Your task to perform on an android device: open app "TextNow: Call + Text Unlimited" Image 0: 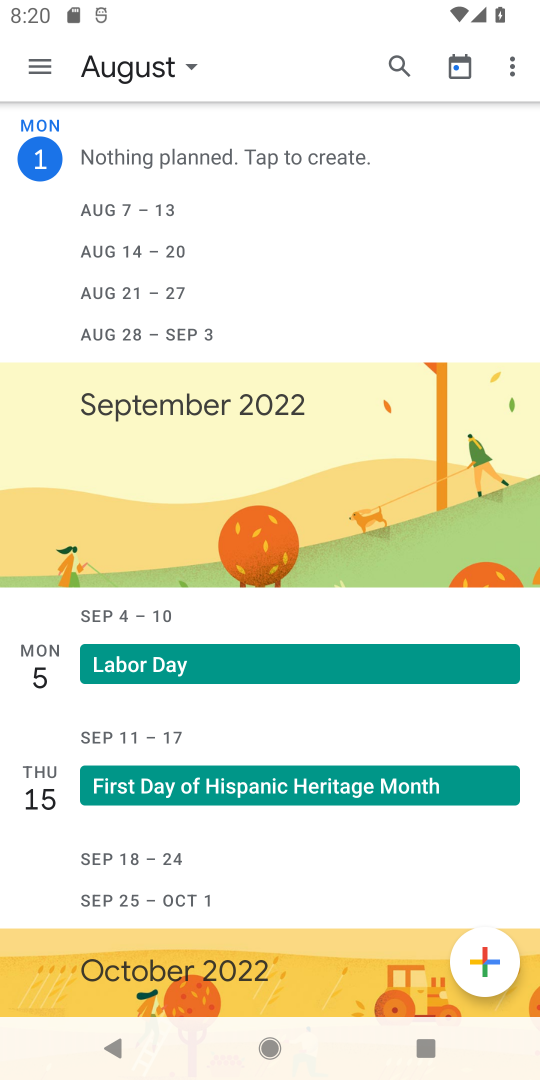
Step 0: press home button
Your task to perform on an android device: open app "TextNow: Call + Text Unlimited" Image 1: 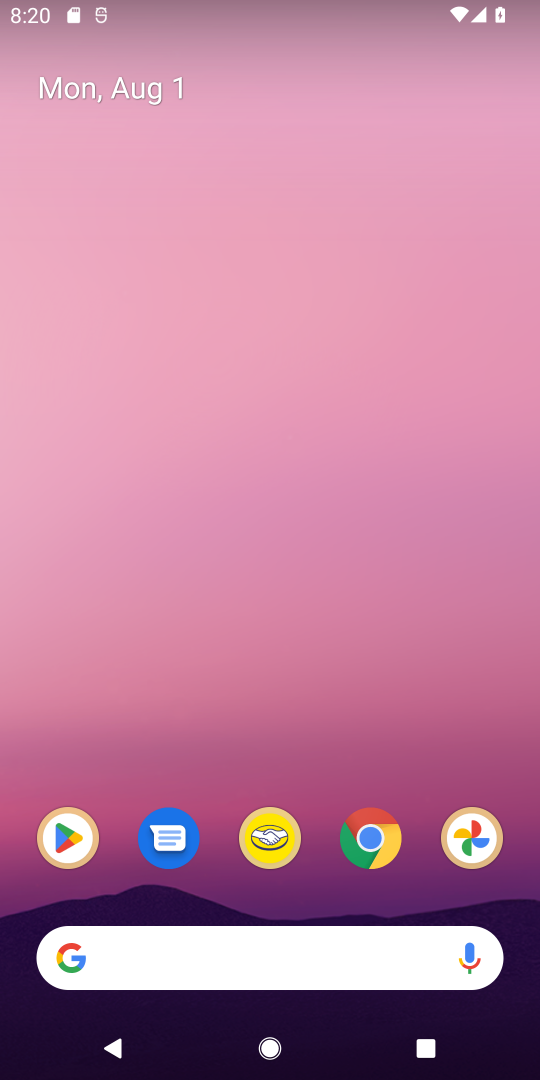
Step 1: click (64, 821)
Your task to perform on an android device: open app "TextNow: Call + Text Unlimited" Image 2: 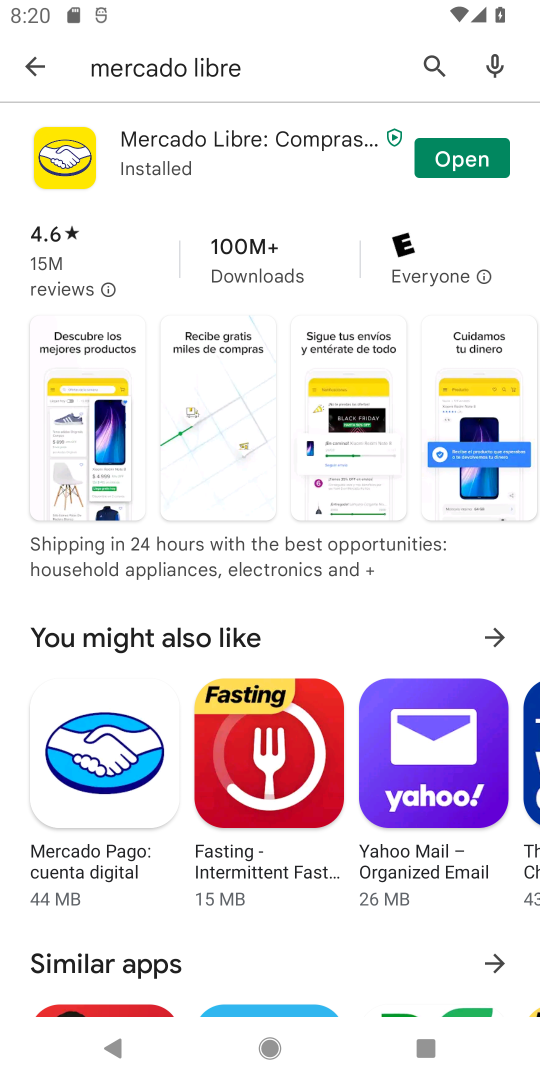
Step 2: click (435, 50)
Your task to perform on an android device: open app "TextNow: Call + Text Unlimited" Image 3: 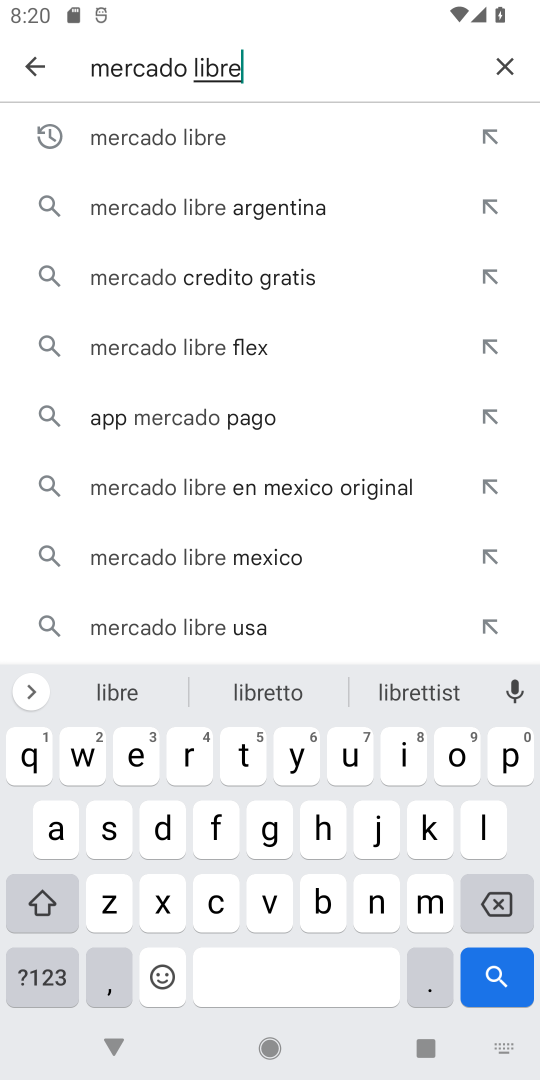
Step 3: click (506, 67)
Your task to perform on an android device: open app "TextNow: Call + Text Unlimited" Image 4: 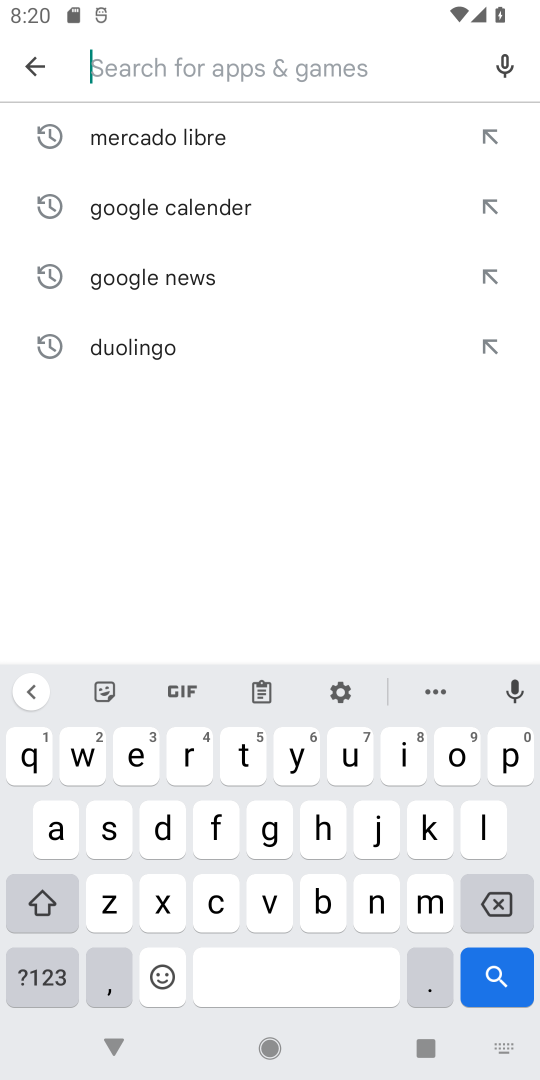
Step 4: click (244, 765)
Your task to perform on an android device: open app "TextNow: Call + Text Unlimited" Image 5: 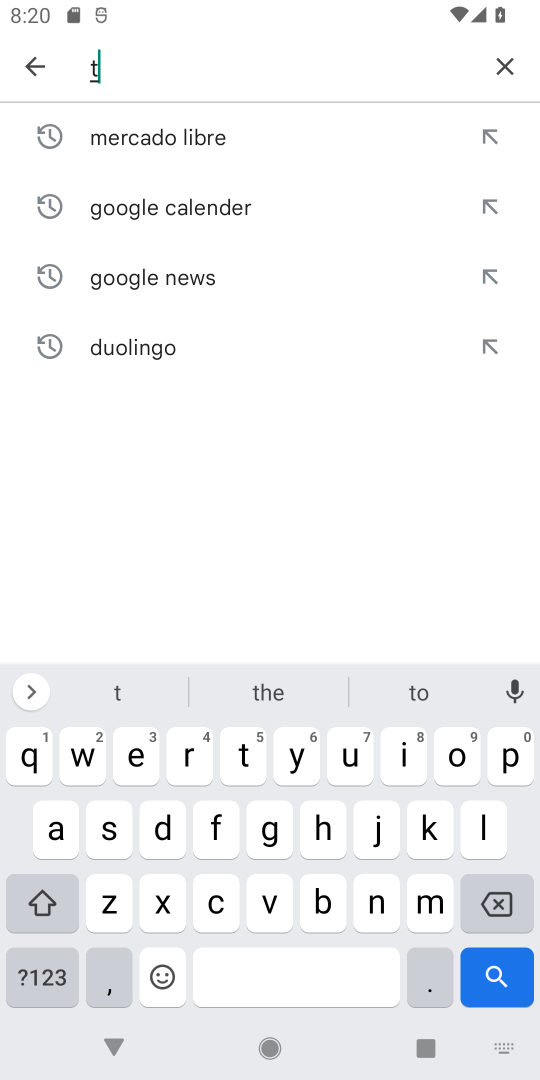
Step 5: click (134, 756)
Your task to perform on an android device: open app "TextNow: Call + Text Unlimited" Image 6: 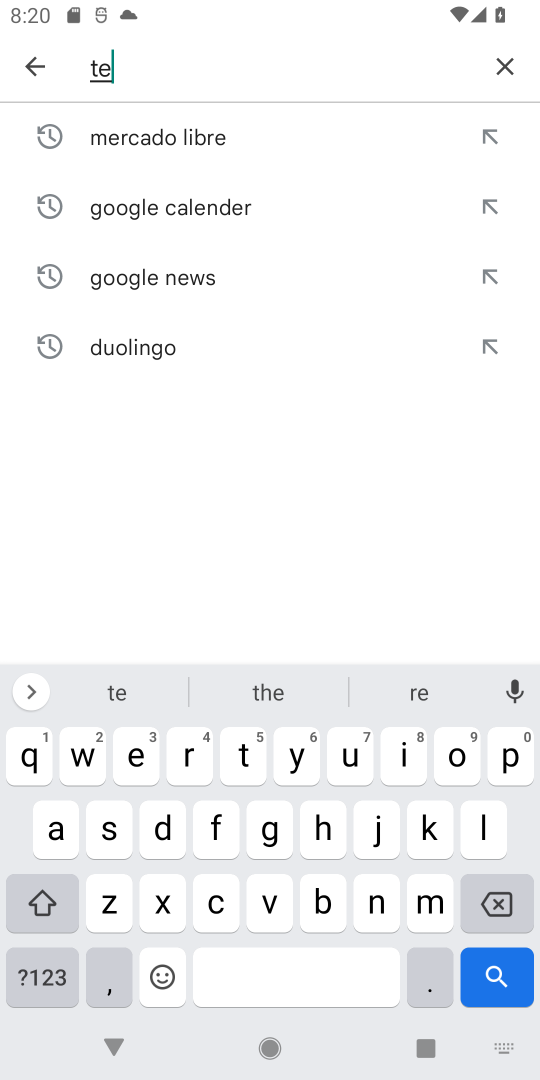
Step 6: click (164, 909)
Your task to perform on an android device: open app "TextNow: Call + Text Unlimited" Image 7: 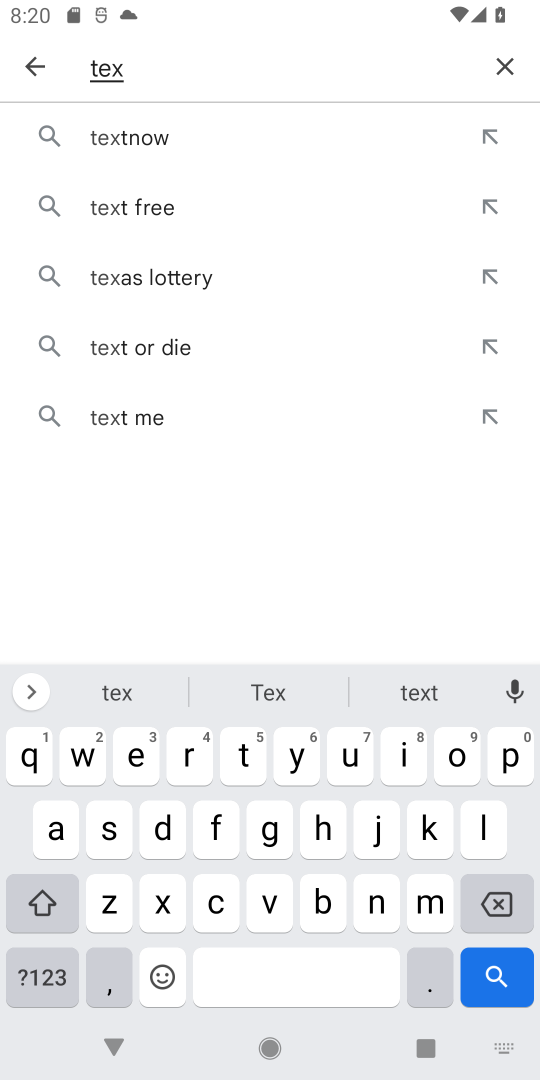
Step 7: click (239, 760)
Your task to perform on an android device: open app "TextNow: Call + Text Unlimited" Image 8: 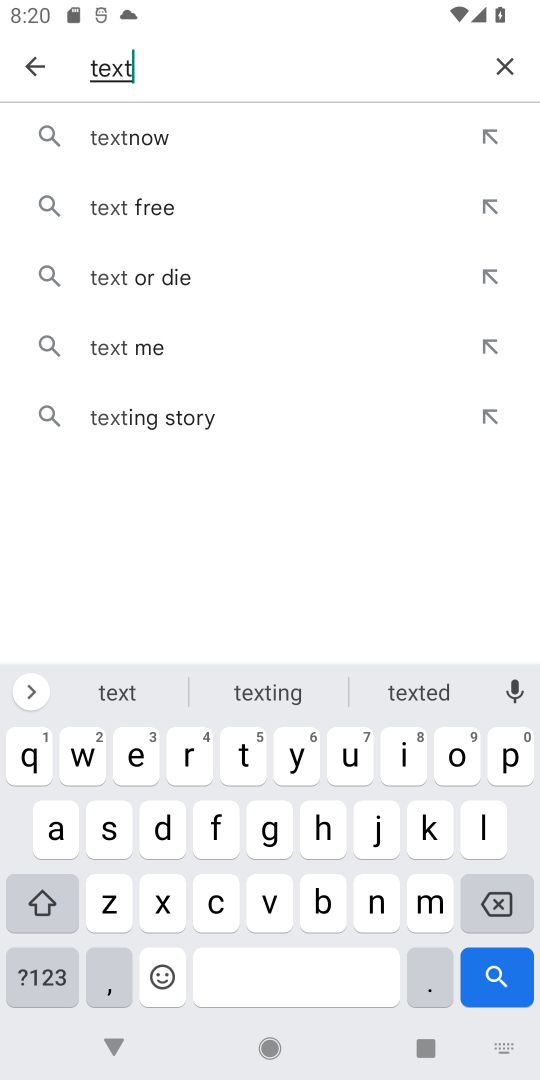
Step 8: click (146, 144)
Your task to perform on an android device: open app "TextNow: Call + Text Unlimited" Image 9: 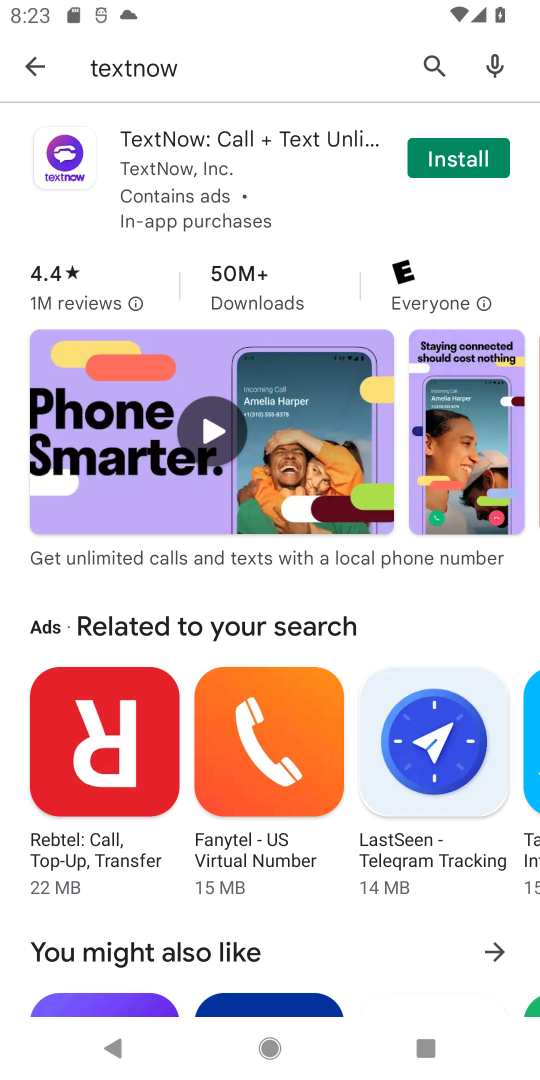
Step 9: task complete